Your task to perform on an android device: Go to Reddit.com Image 0: 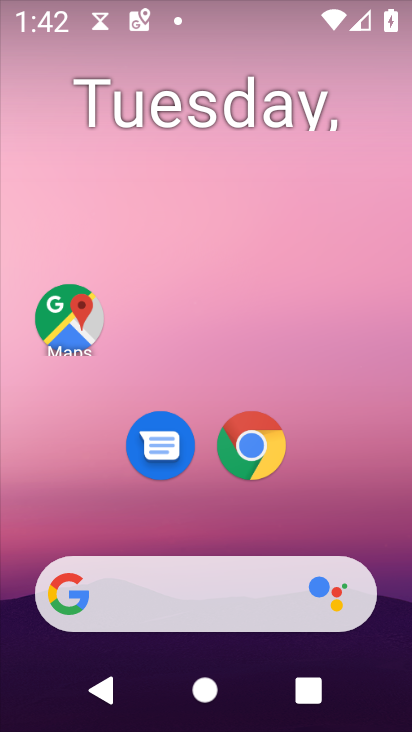
Step 0: drag from (361, 534) to (353, 163)
Your task to perform on an android device: Go to Reddit.com Image 1: 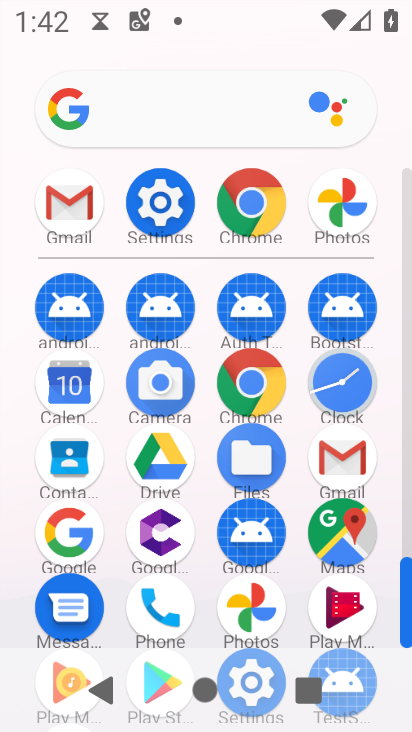
Step 1: click (232, 373)
Your task to perform on an android device: Go to Reddit.com Image 2: 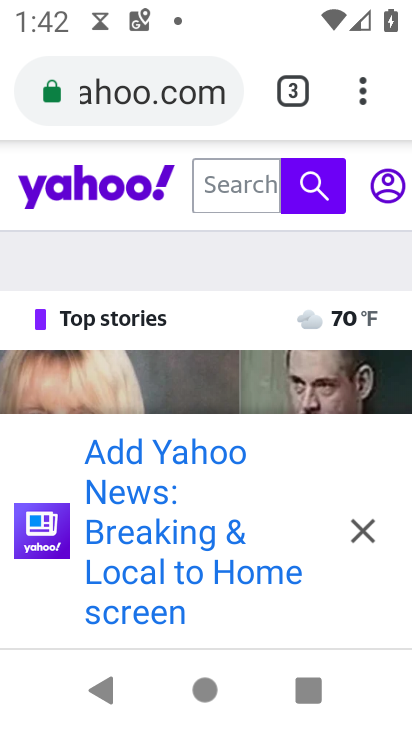
Step 2: click (209, 85)
Your task to perform on an android device: Go to Reddit.com Image 3: 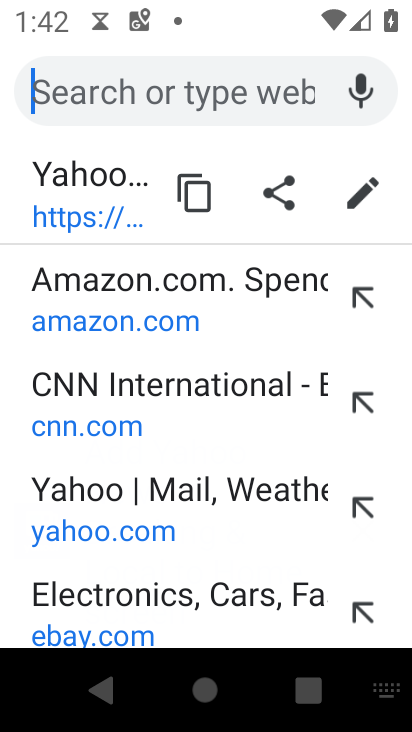
Step 3: type "reddit.com"
Your task to perform on an android device: Go to Reddit.com Image 4: 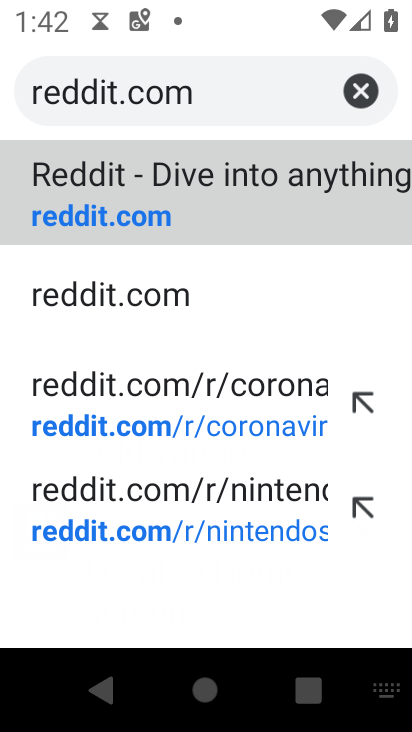
Step 4: click (176, 188)
Your task to perform on an android device: Go to Reddit.com Image 5: 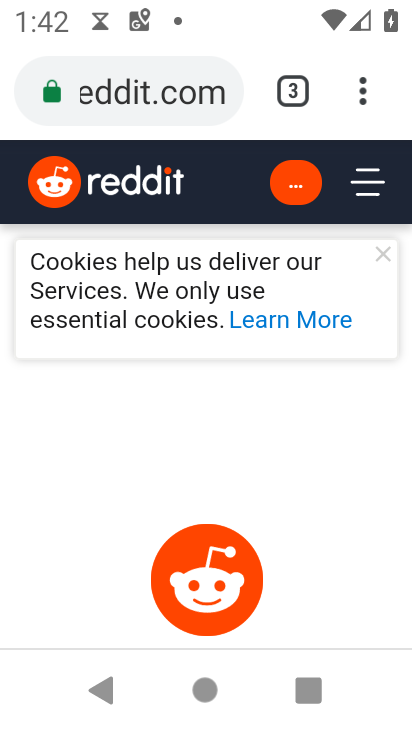
Step 5: task complete